Your task to perform on an android device: Toggle the flashlight Image 0: 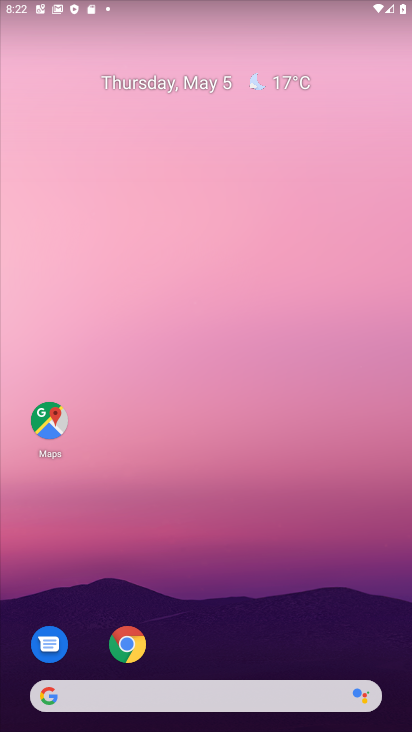
Step 0: drag from (242, 6) to (226, 497)
Your task to perform on an android device: Toggle the flashlight Image 1: 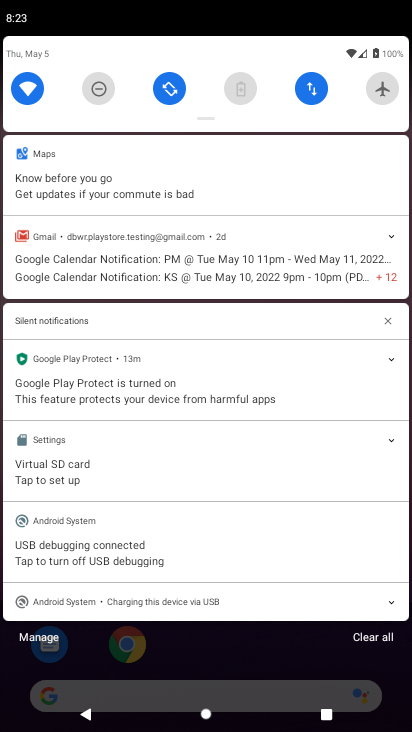
Step 1: drag from (210, 105) to (232, 664)
Your task to perform on an android device: Toggle the flashlight Image 2: 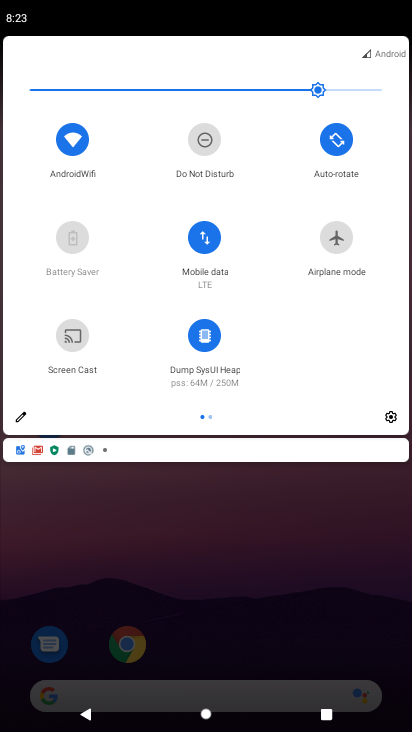
Step 2: drag from (384, 369) to (120, 285)
Your task to perform on an android device: Toggle the flashlight Image 3: 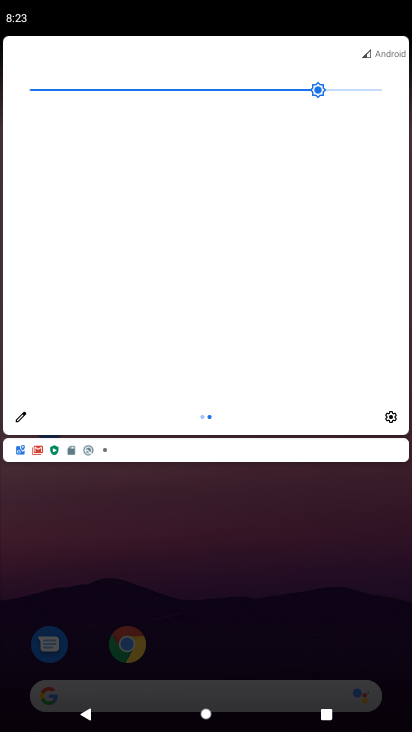
Step 3: click (9, 424)
Your task to perform on an android device: Toggle the flashlight Image 4: 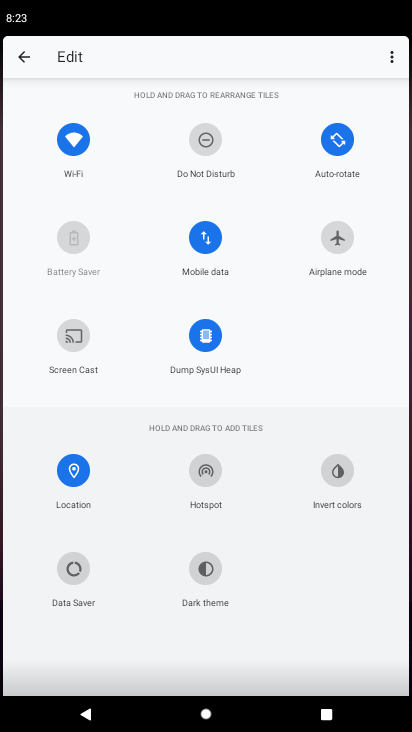
Step 4: task complete